Your task to perform on an android device: add a contact Image 0: 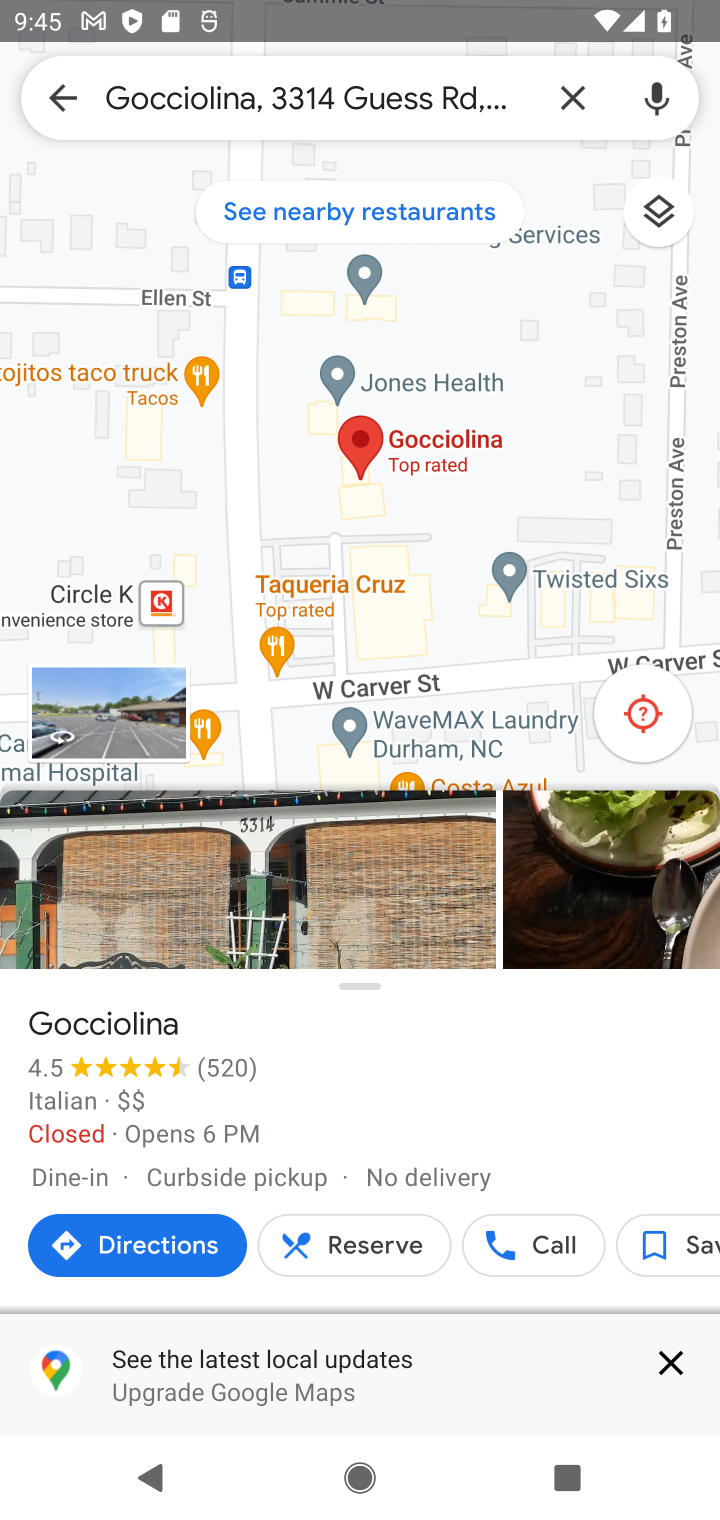
Step 0: press home button
Your task to perform on an android device: add a contact Image 1: 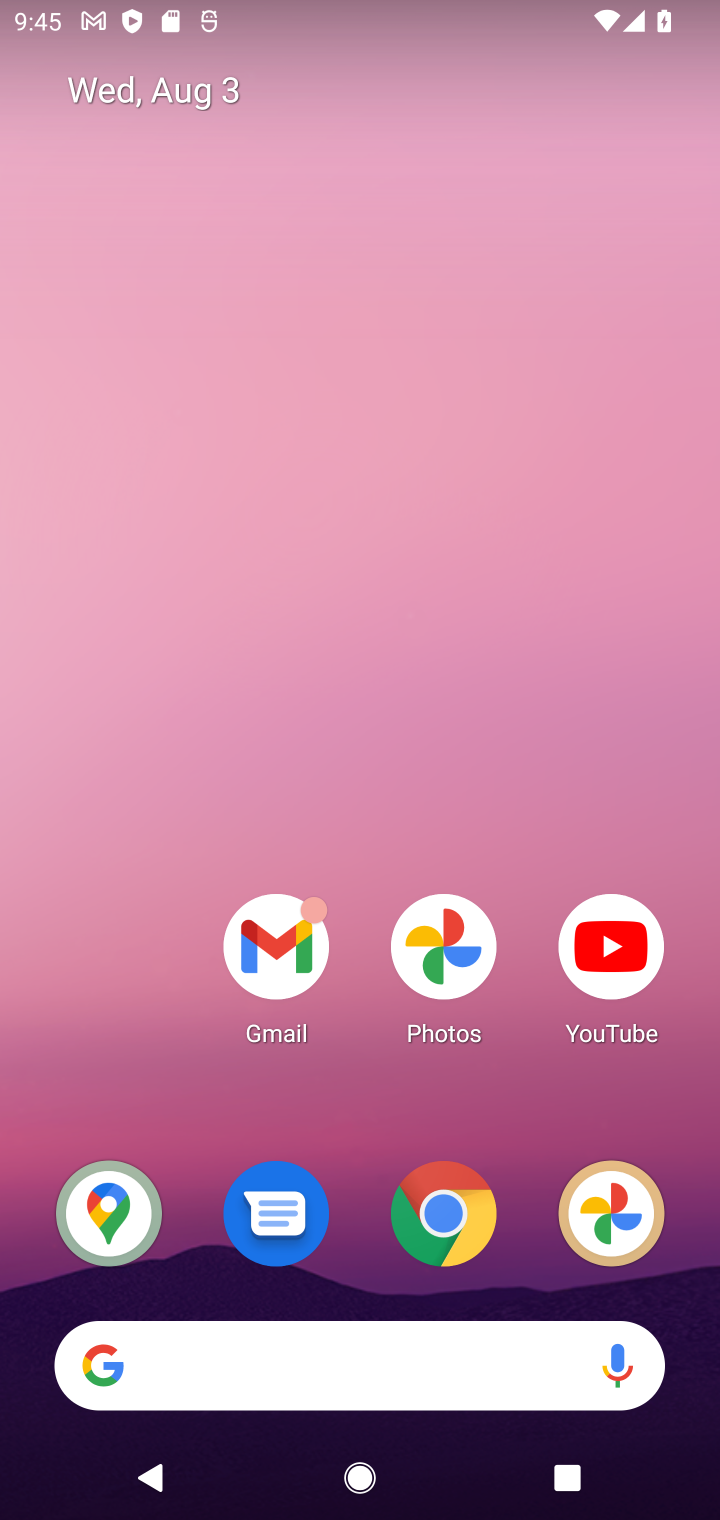
Step 1: drag from (334, 1282) to (249, 301)
Your task to perform on an android device: add a contact Image 2: 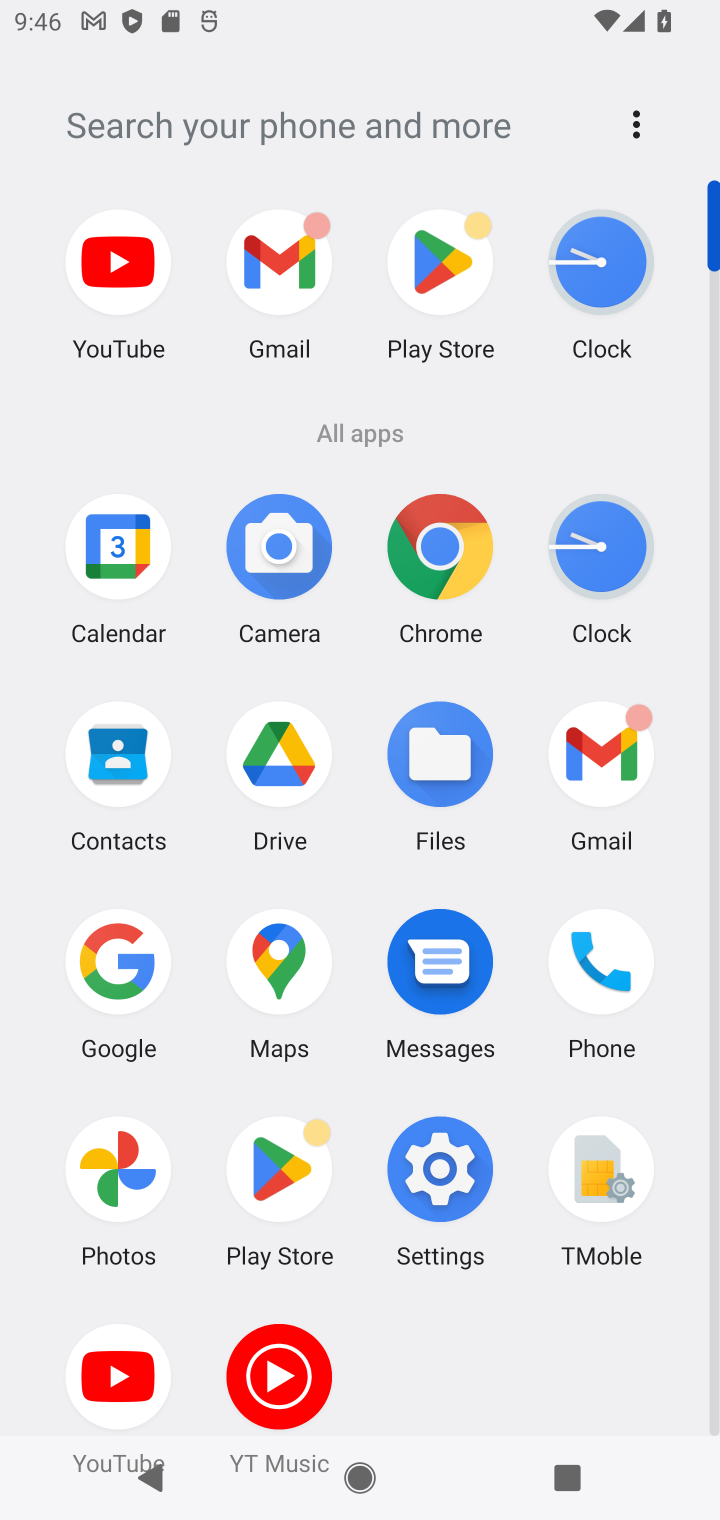
Step 2: click (567, 941)
Your task to perform on an android device: add a contact Image 3: 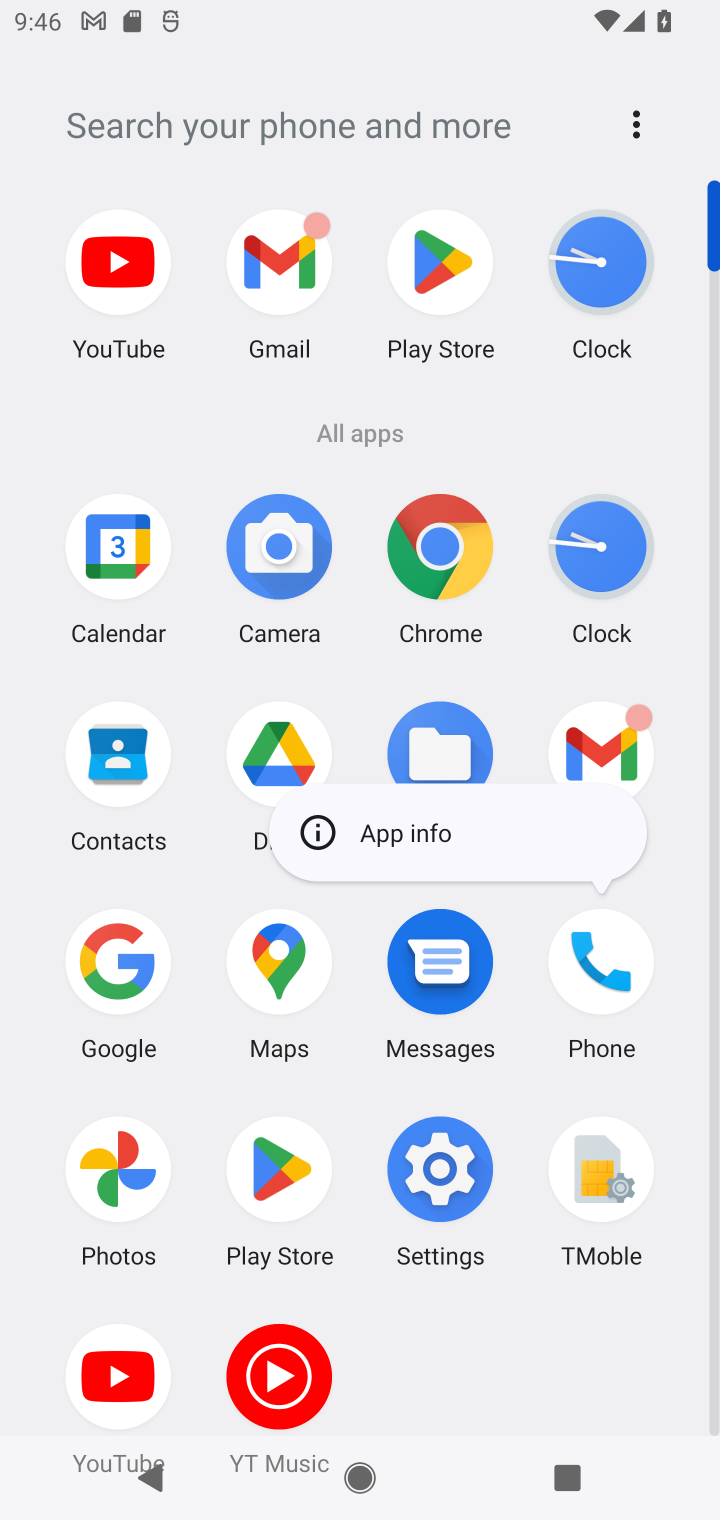
Step 3: click (649, 1003)
Your task to perform on an android device: add a contact Image 4: 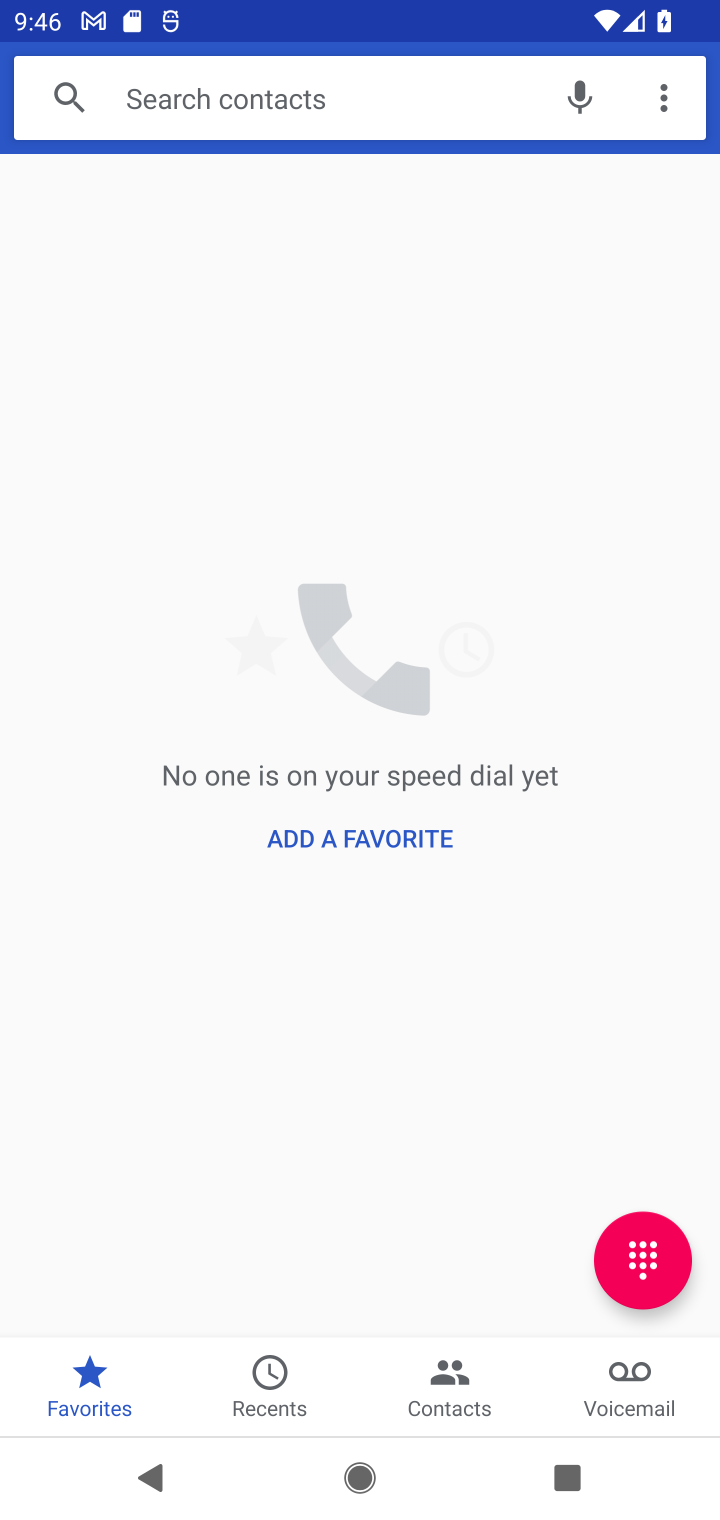
Step 4: click (473, 1355)
Your task to perform on an android device: add a contact Image 5: 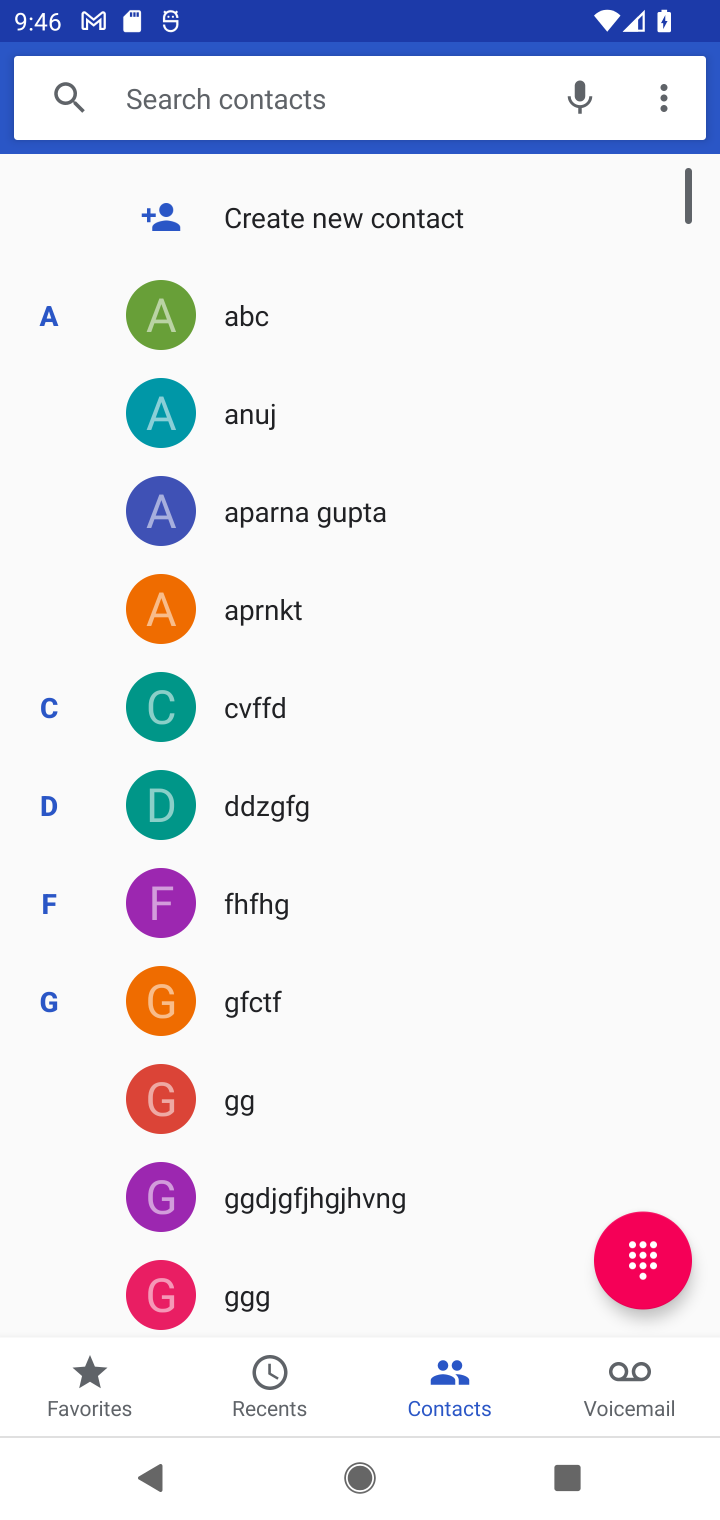
Step 5: click (308, 208)
Your task to perform on an android device: add a contact Image 6: 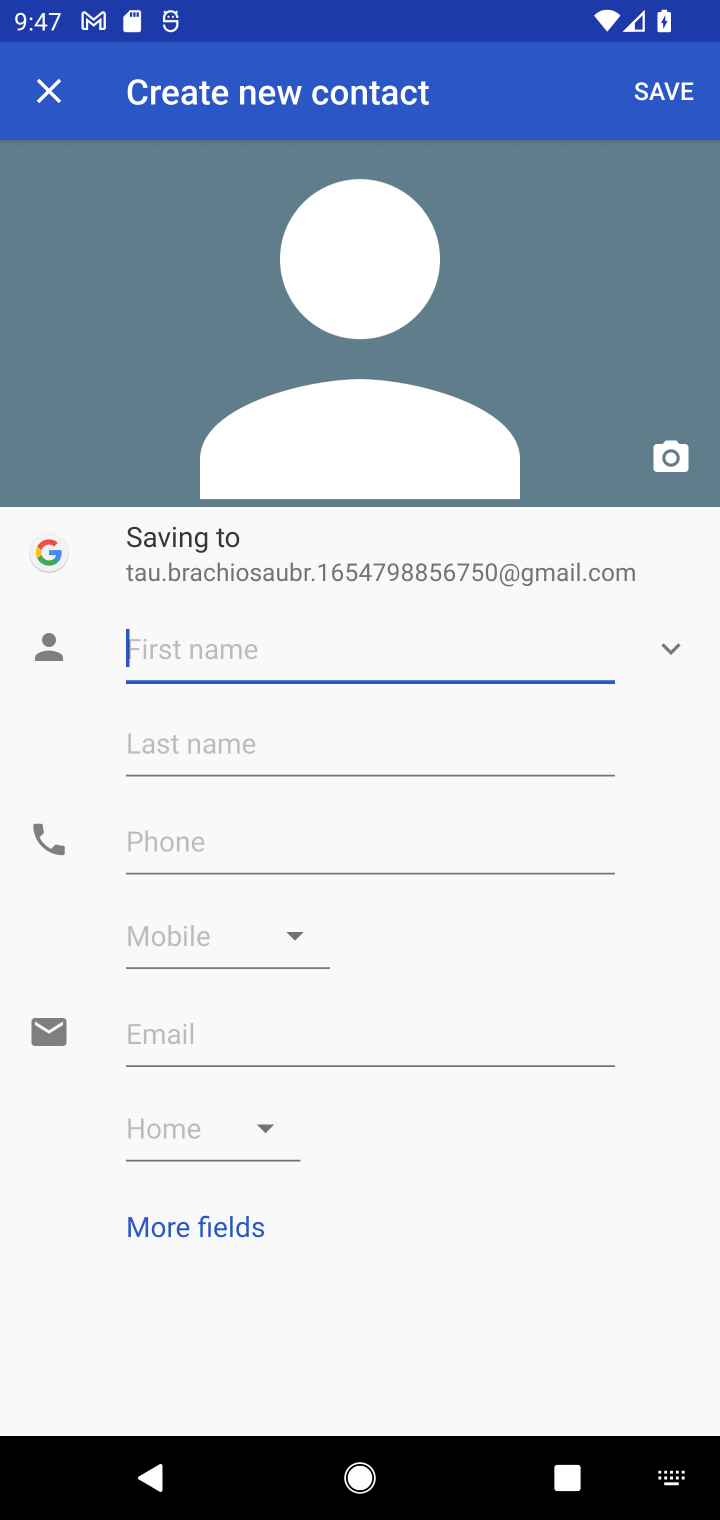
Step 6: type "by"
Your task to perform on an android device: add a contact Image 7: 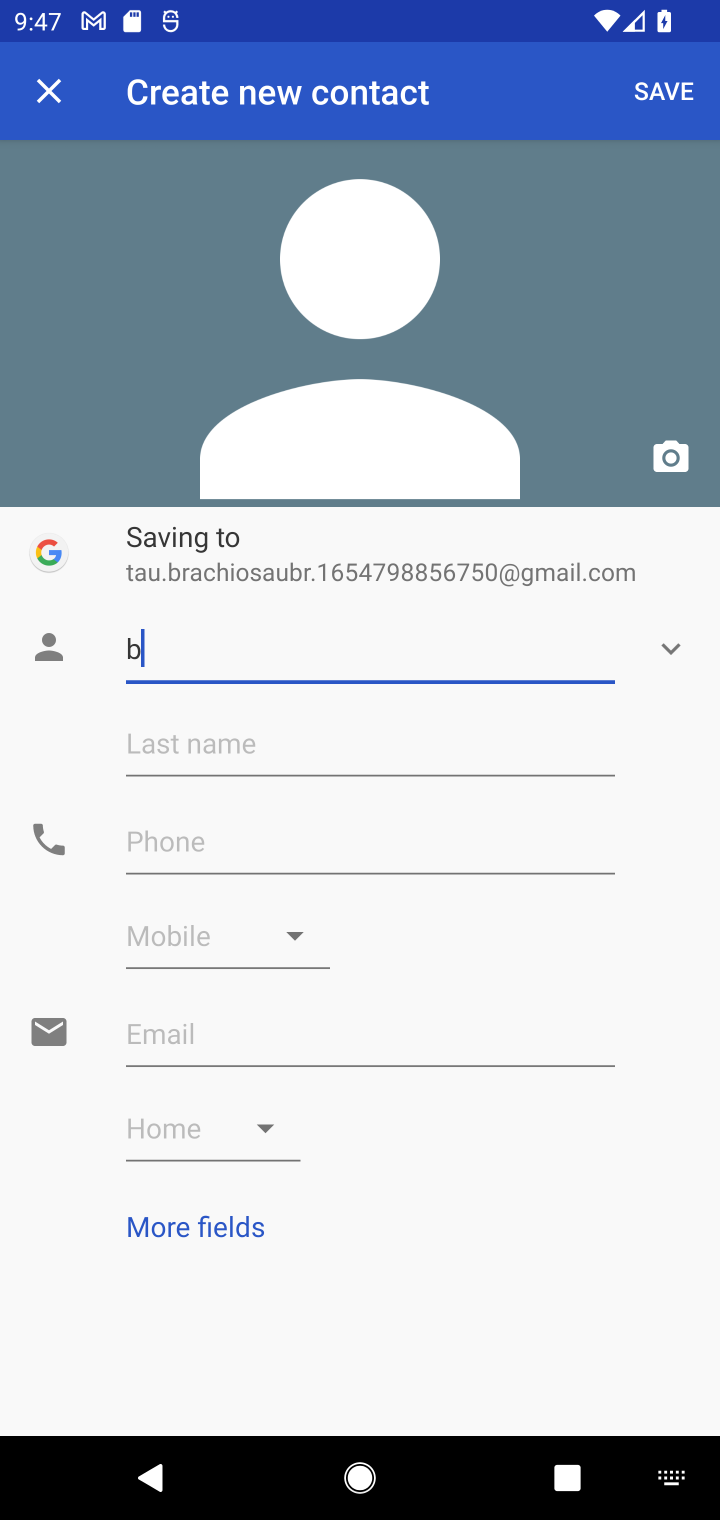
Step 7: type ""
Your task to perform on an android device: add a contact Image 8: 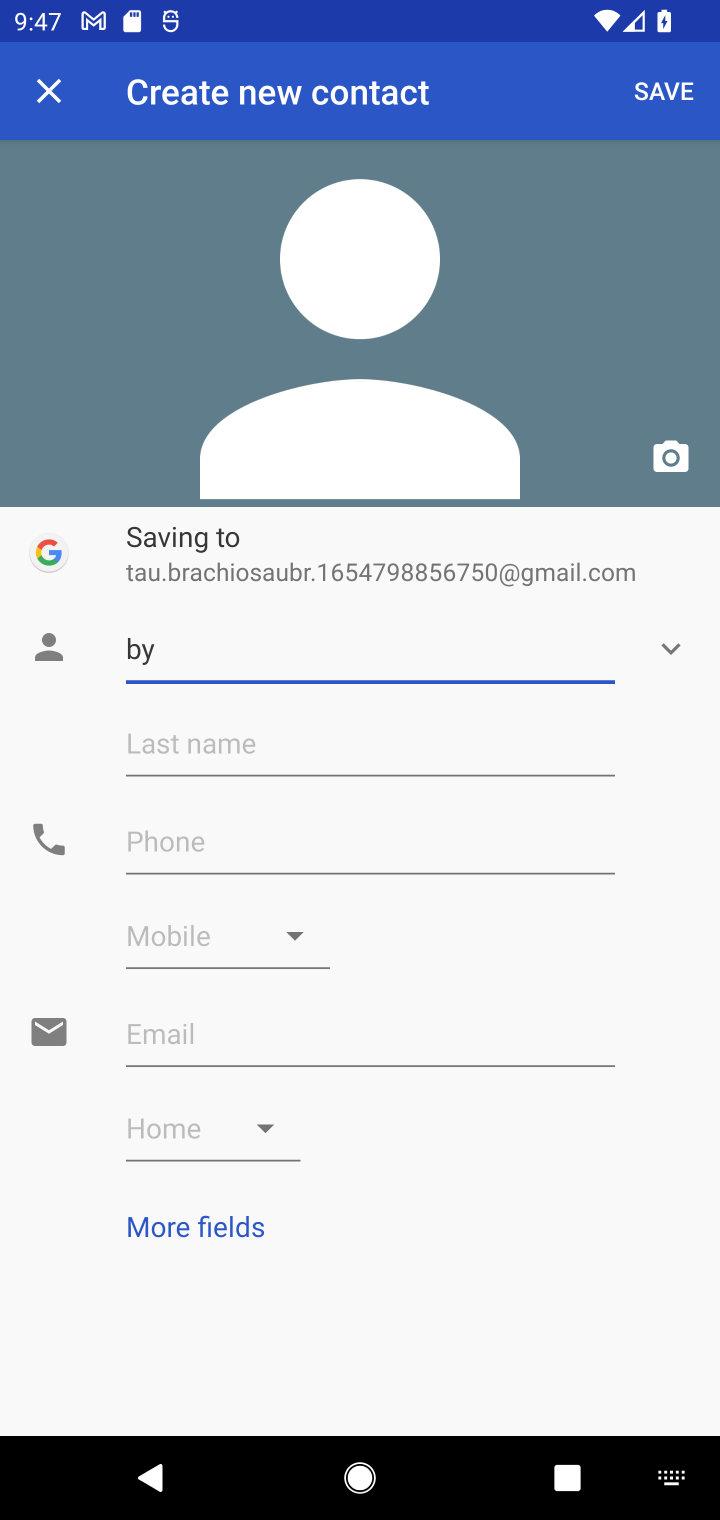
Step 8: drag from (330, 566) to (414, 574)
Your task to perform on an android device: add a contact Image 9: 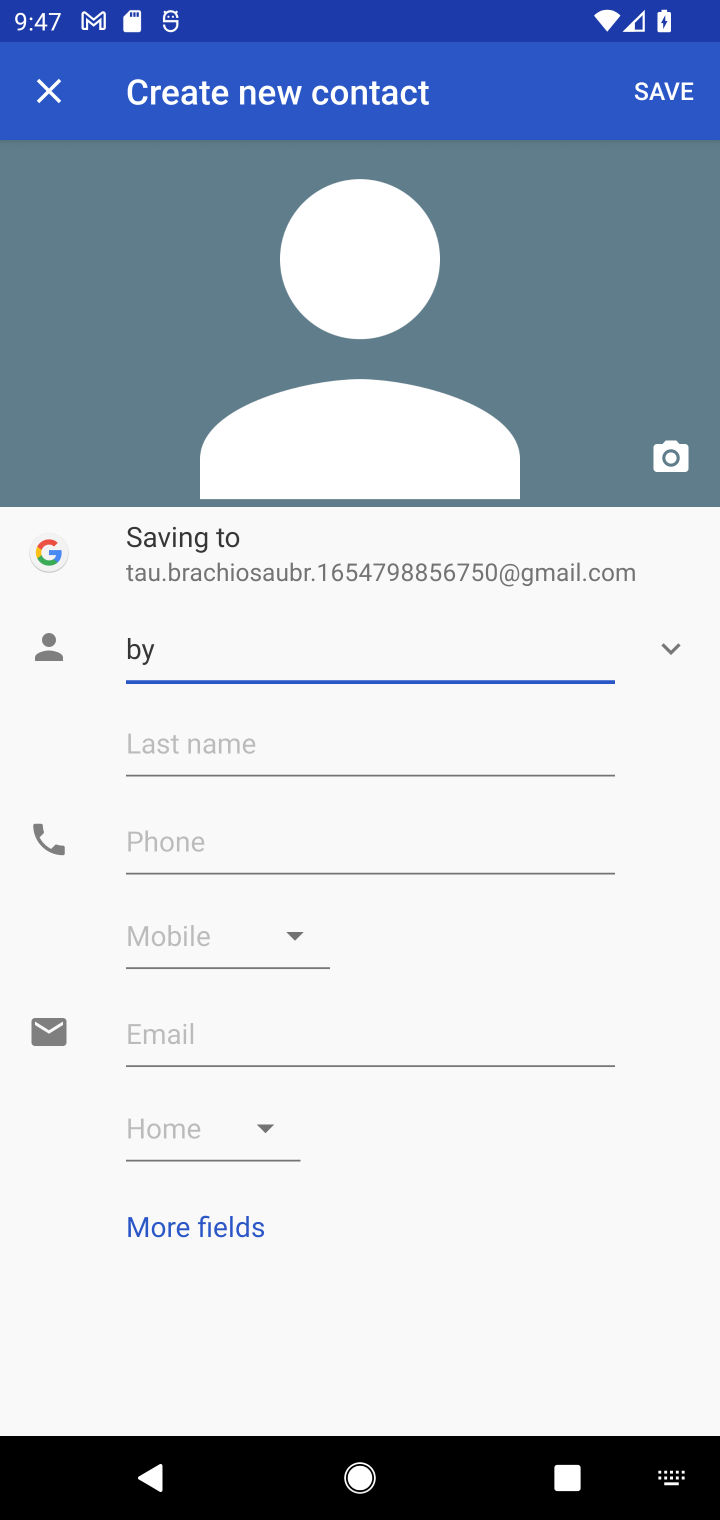
Step 9: click (652, 73)
Your task to perform on an android device: add a contact Image 10: 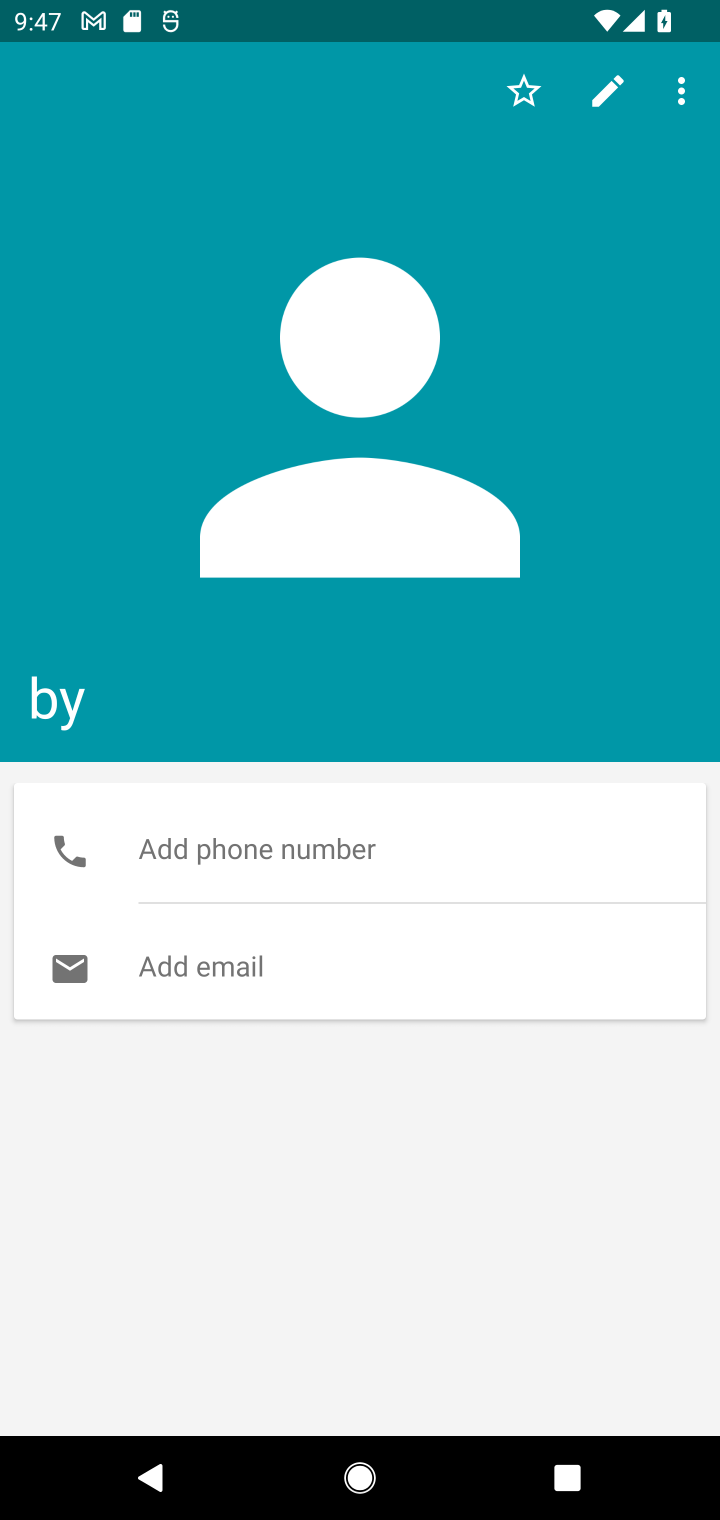
Step 10: task complete